Your task to perform on an android device: Do I have any events tomorrow? Image 0: 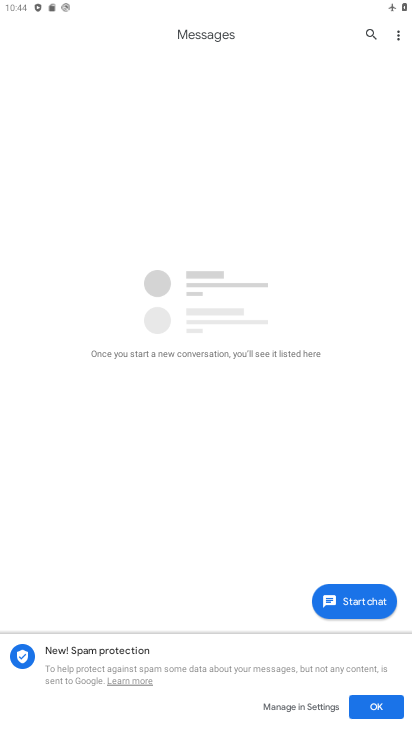
Step 0: press home button
Your task to perform on an android device: Do I have any events tomorrow? Image 1: 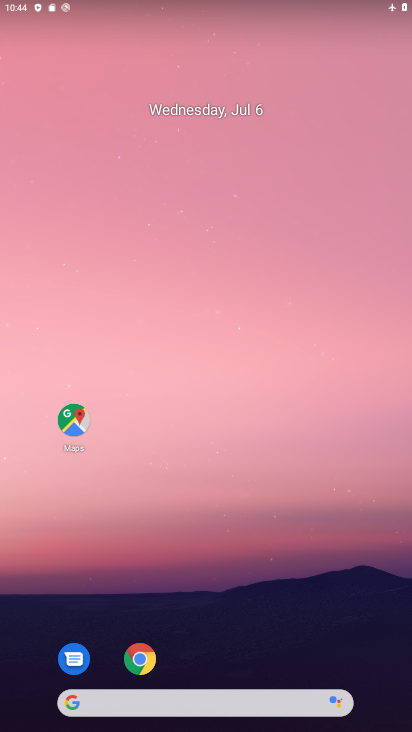
Step 1: drag from (211, 643) to (230, 139)
Your task to perform on an android device: Do I have any events tomorrow? Image 2: 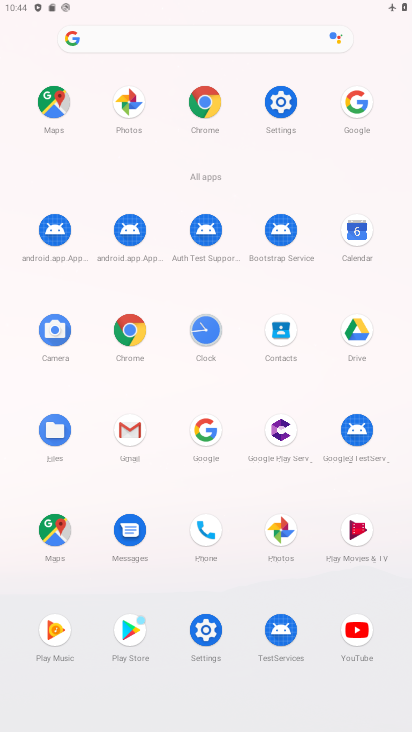
Step 2: click (353, 233)
Your task to perform on an android device: Do I have any events tomorrow? Image 3: 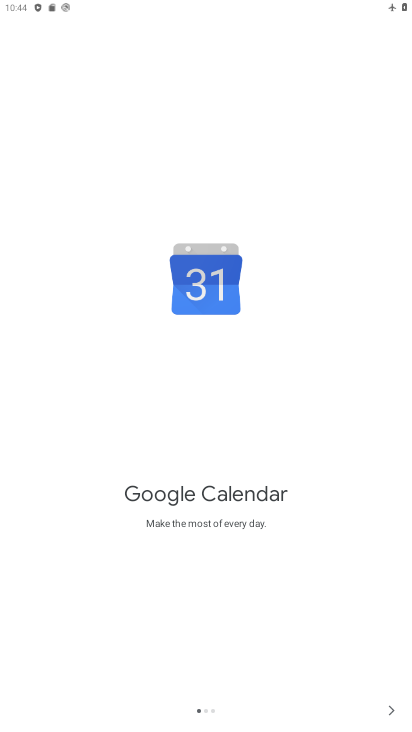
Step 3: click (394, 715)
Your task to perform on an android device: Do I have any events tomorrow? Image 4: 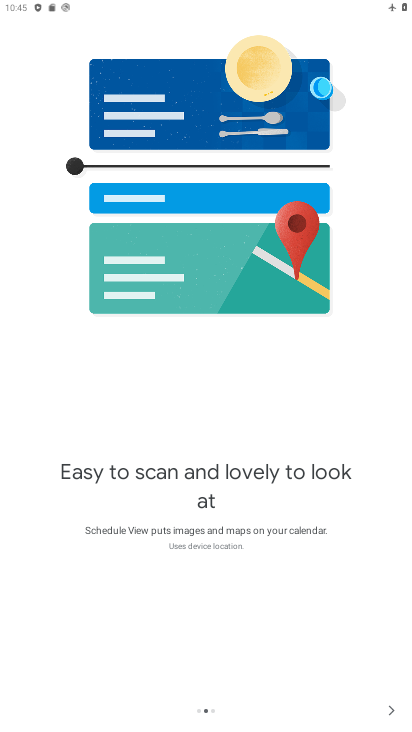
Step 4: click (394, 715)
Your task to perform on an android device: Do I have any events tomorrow? Image 5: 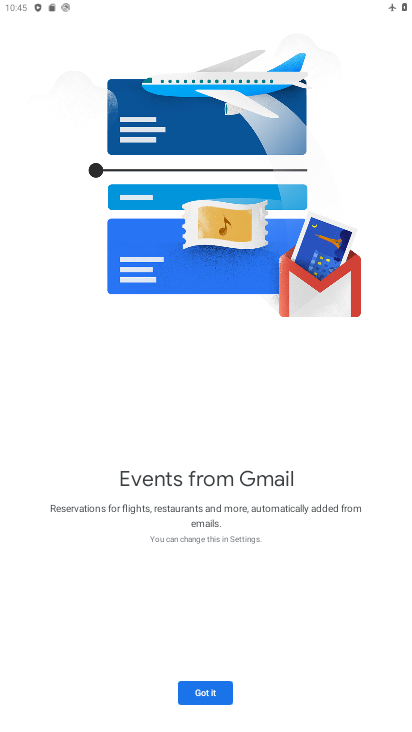
Step 5: click (394, 715)
Your task to perform on an android device: Do I have any events tomorrow? Image 6: 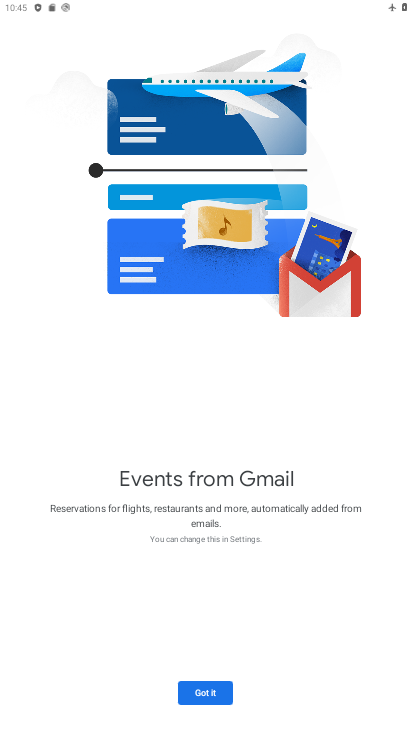
Step 6: click (200, 694)
Your task to perform on an android device: Do I have any events tomorrow? Image 7: 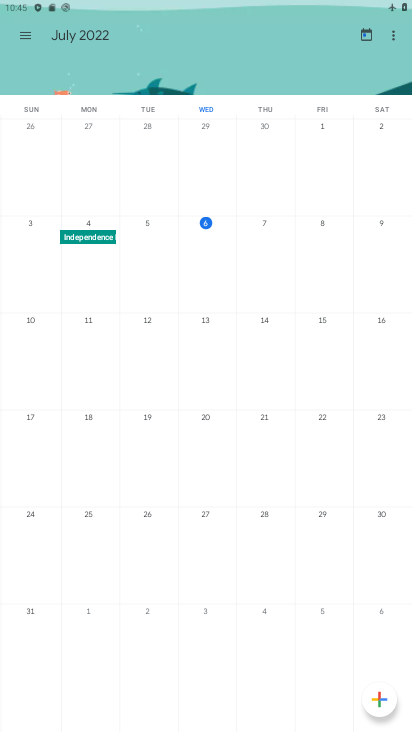
Step 7: click (22, 33)
Your task to perform on an android device: Do I have any events tomorrow? Image 8: 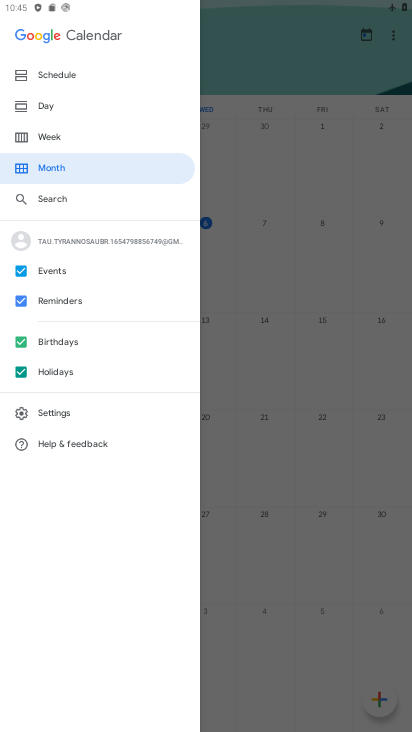
Step 8: click (82, 66)
Your task to perform on an android device: Do I have any events tomorrow? Image 9: 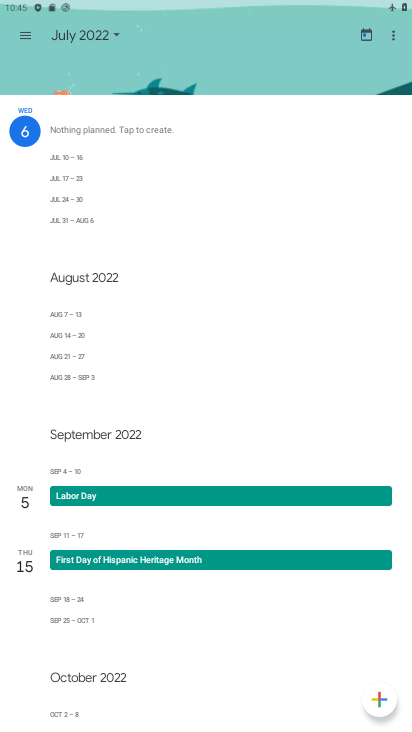
Step 9: task complete